Your task to perform on an android device: Open Google Chrome and click the shortcut for Amazon.com Image 0: 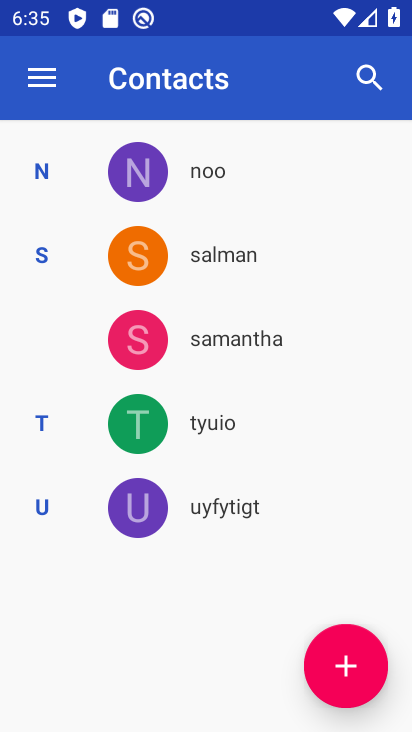
Step 0: press home button
Your task to perform on an android device: Open Google Chrome and click the shortcut for Amazon.com Image 1: 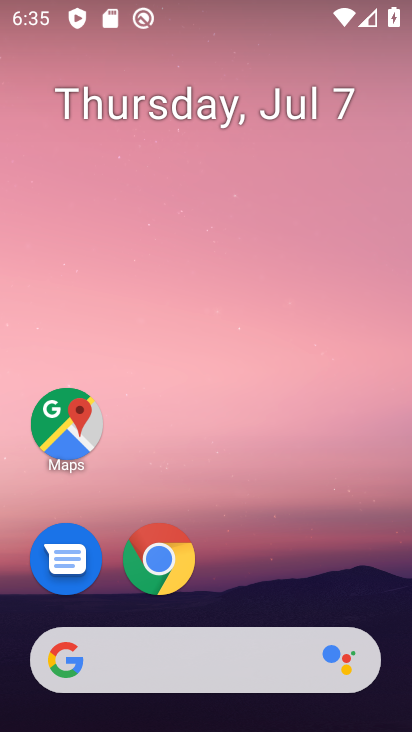
Step 1: click (153, 562)
Your task to perform on an android device: Open Google Chrome and click the shortcut for Amazon.com Image 2: 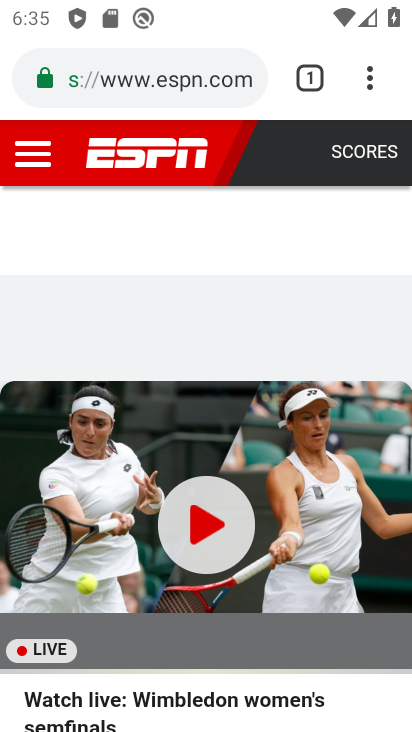
Step 2: drag from (306, 94) to (301, 186)
Your task to perform on an android device: Open Google Chrome and click the shortcut for Amazon.com Image 3: 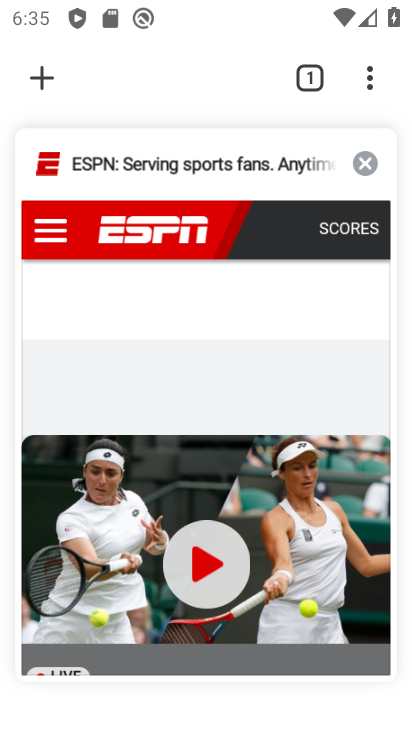
Step 3: click (52, 74)
Your task to perform on an android device: Open Google Chrome and click the shortcut for Amazon.com Image 4: 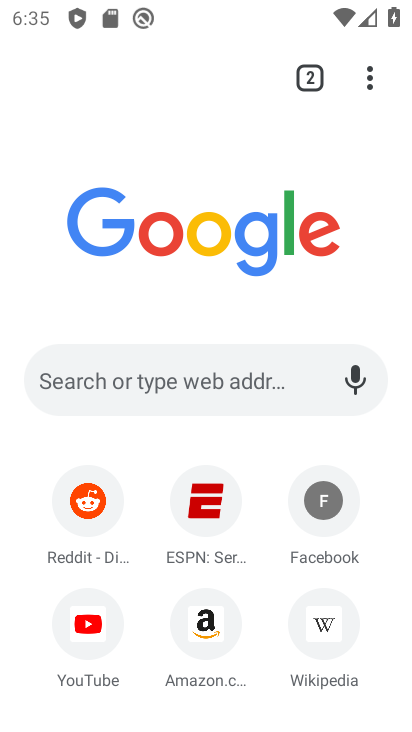
Step 4: click (199, 635)
Your task to perform on an android device: Open Google Chrome and click the shortcut for Amazon.com Image 5: 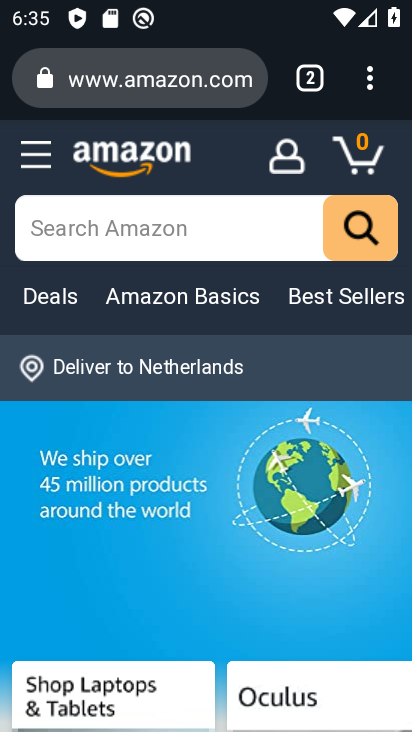
Step 5: task complete